Your task to perform on an android device: Go to Amazon Image 0: 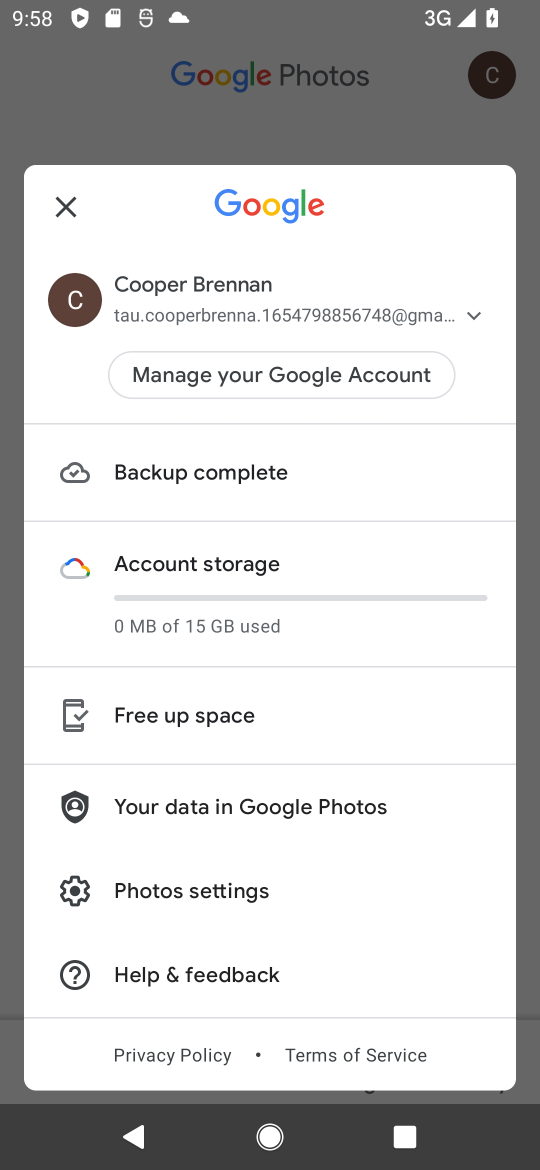
Step 0: press home button
Your task to perform on an android device: Go to Amazon Image 1: 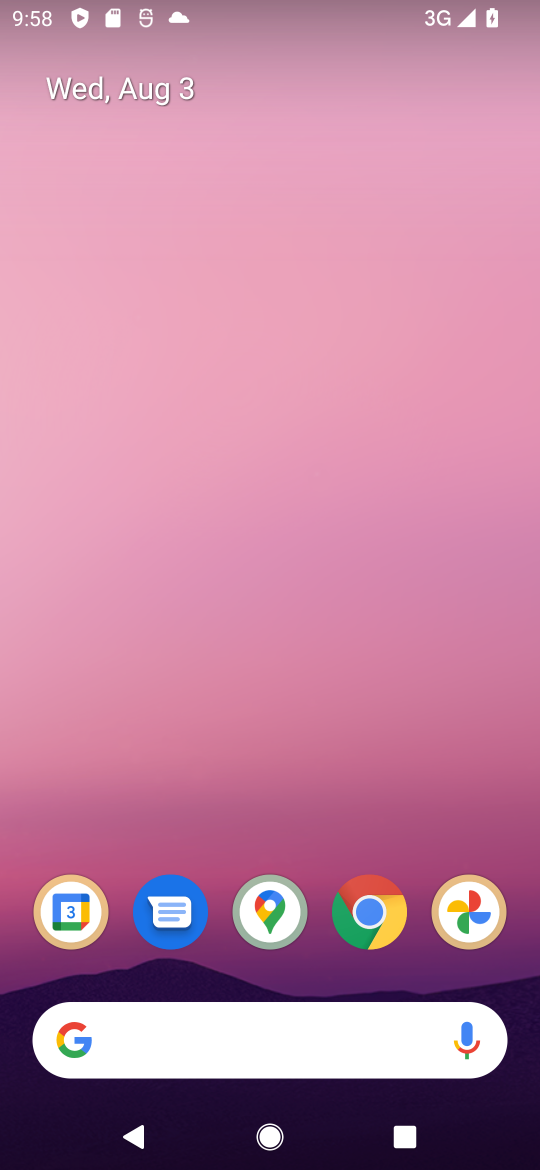
Step 1: drag from (302, 798) to (301, 178)
Your task to perform on an android device: Go to Amazon Image 2: 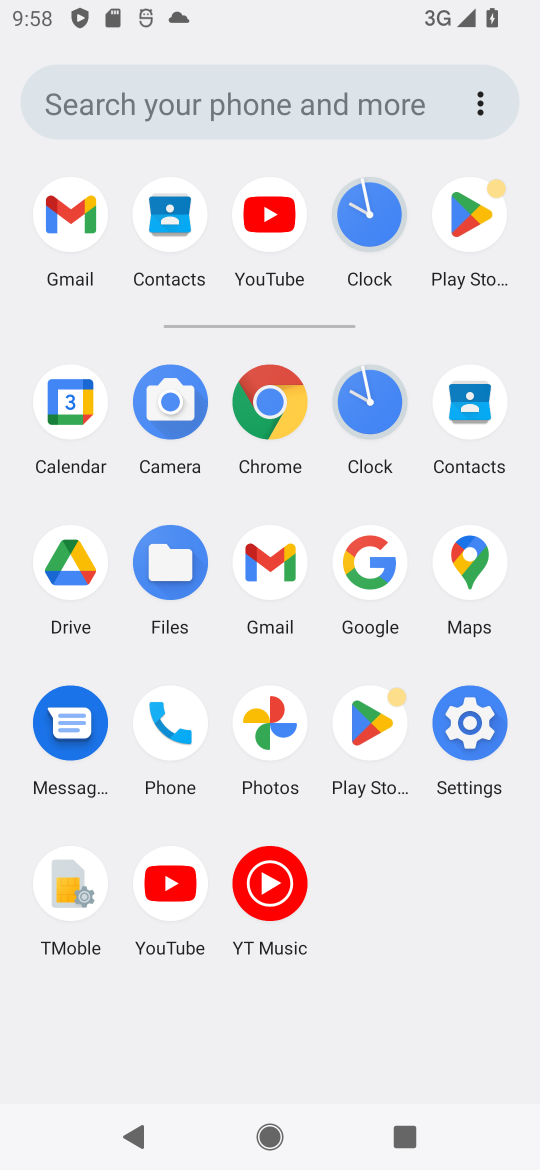
Step 2: click (243, 424)
Your task to perform on an android device: Go to Amazon Image 3: 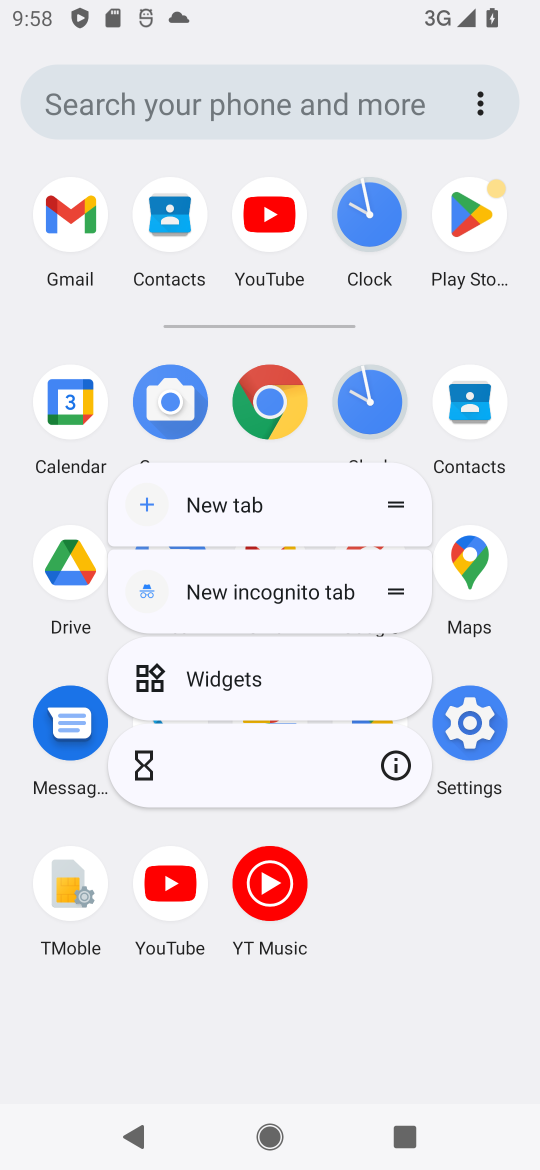
Step 3: click (243, 422)
Your task to perform on an android device: Go to Amazon Image 4: 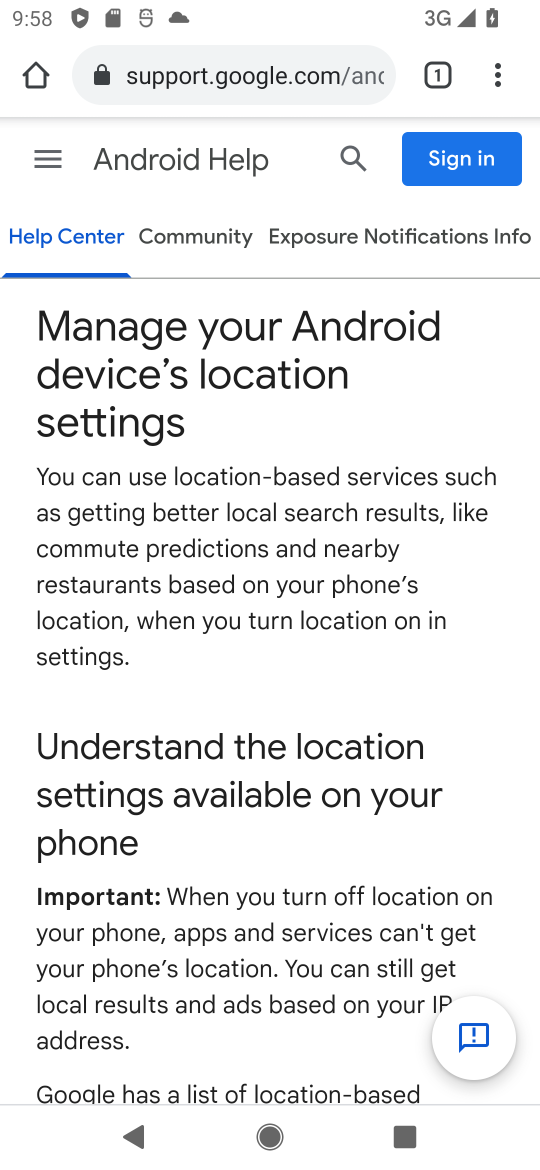
Step 4: drag from (185, 433) to (235, 912)
Your task to perform on an android device: Go to Amazon Image 5: 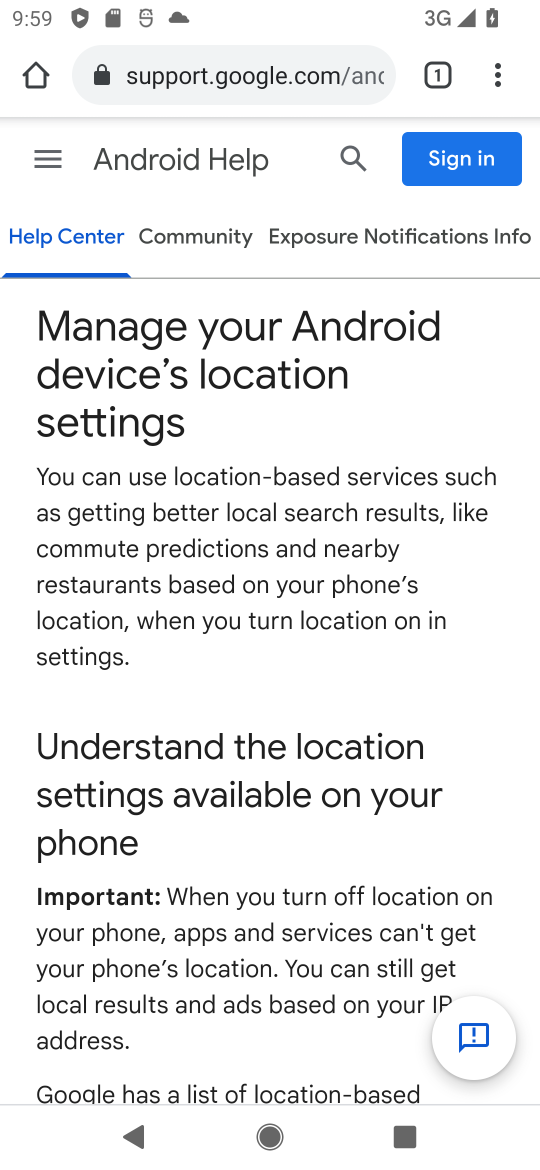
Step 5: press back button
Your task to perform on an android device: Go to Amazon Image 6: 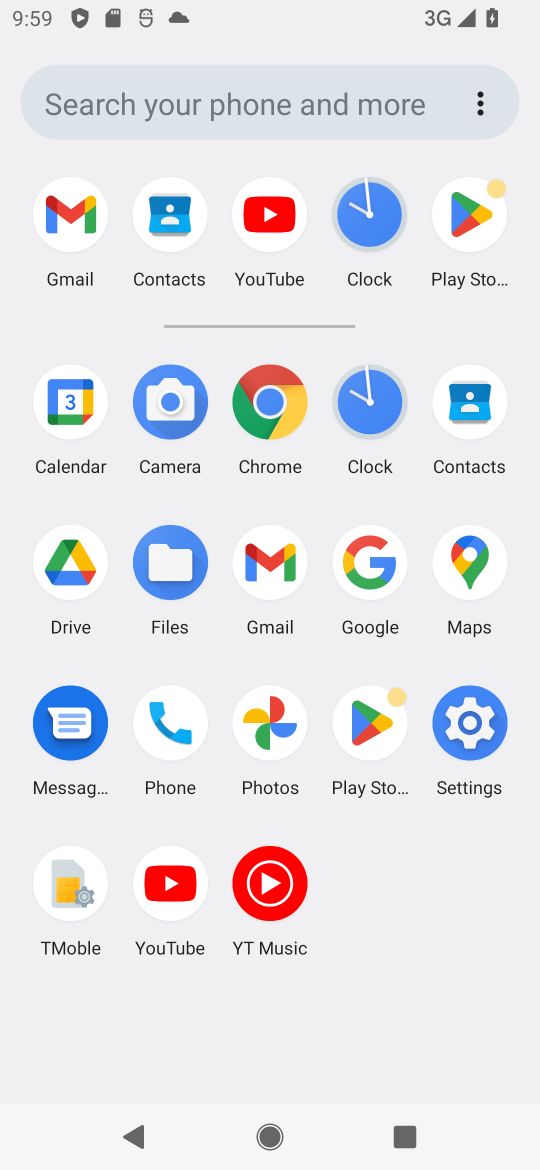
Step 6: click (255, 415)
Your task to perform on an android device: Go to Amazon Image 7: 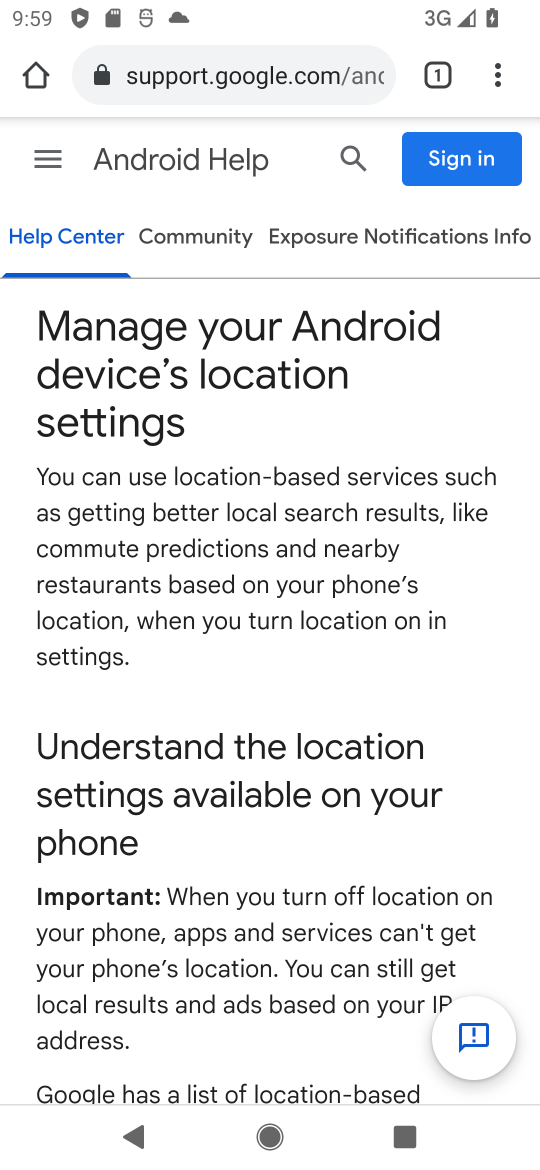
Step 7: click (227, 90)
Your task to perform on an android device: Go to Amazon Image 8: 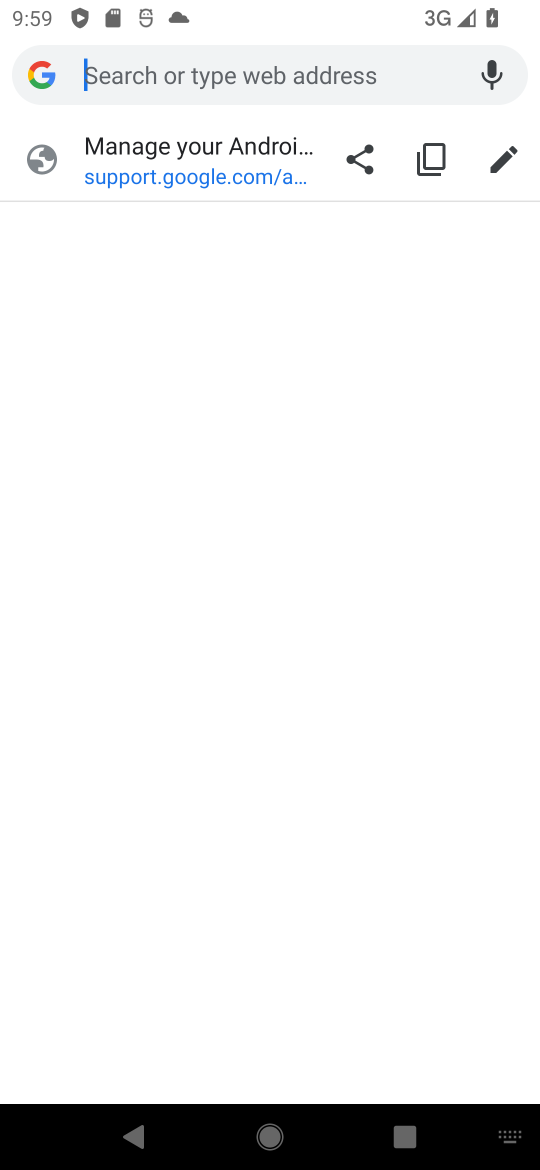
Step 8: type "Amazon"
Your task to perform on an android device: Go to Amazon Image 9: 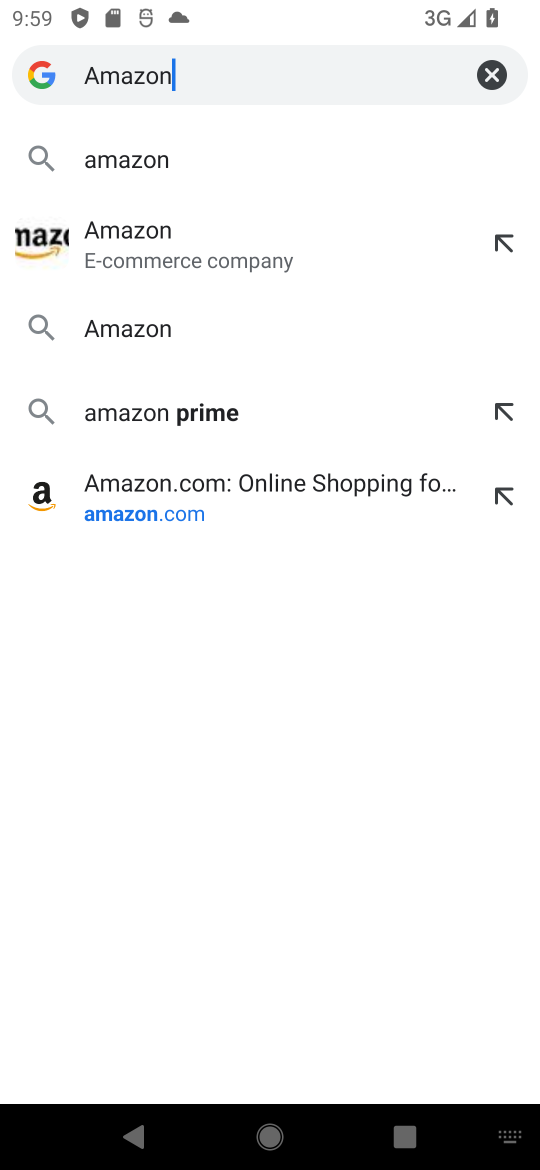
Step 9: click (104, 238)
Your task to perform on an android device: Go to Amazon Image 10: 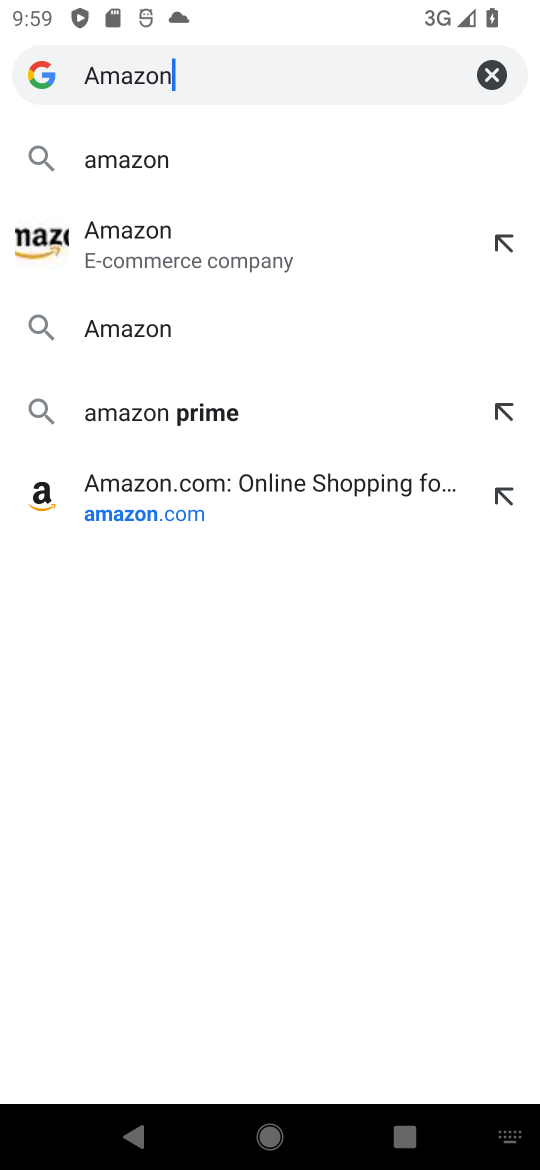
Step 10: click (154, 145)
Your task to perform on an android device: Go to Amazon Image 11: 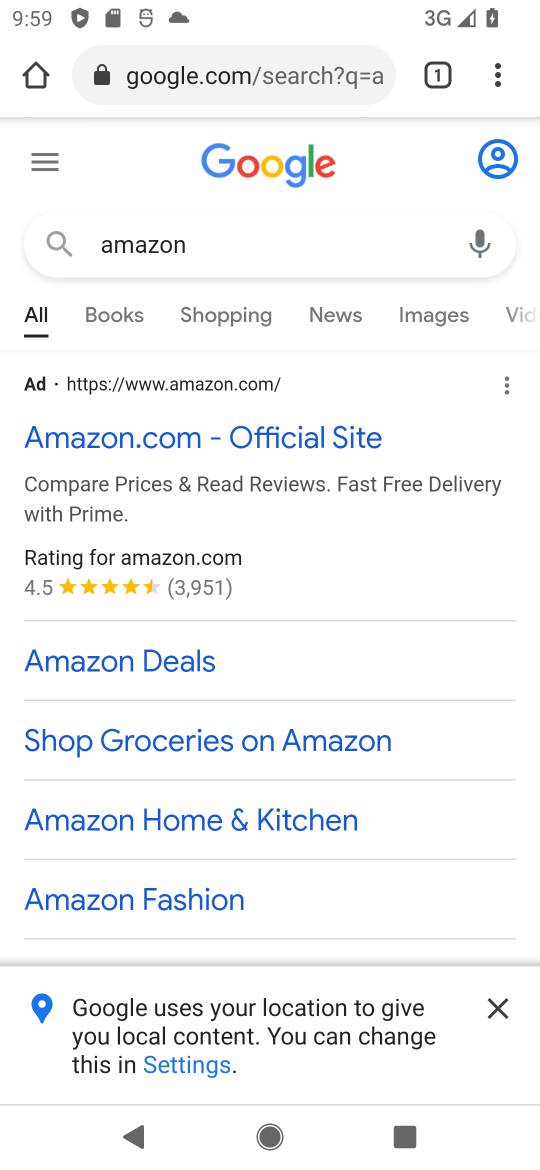
Step 11: click (97, 432)
Your task to perform on an android device: Go to Amazon Image 12: 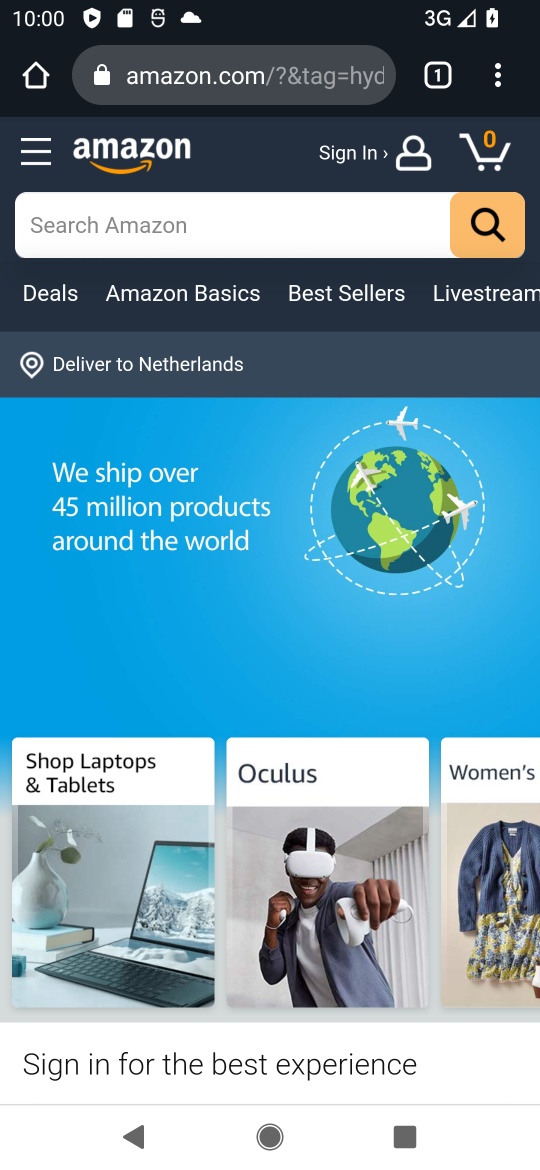
Step 12: task complete